Your task to perform on an android device: turn on translation in the chrome app Image 0: 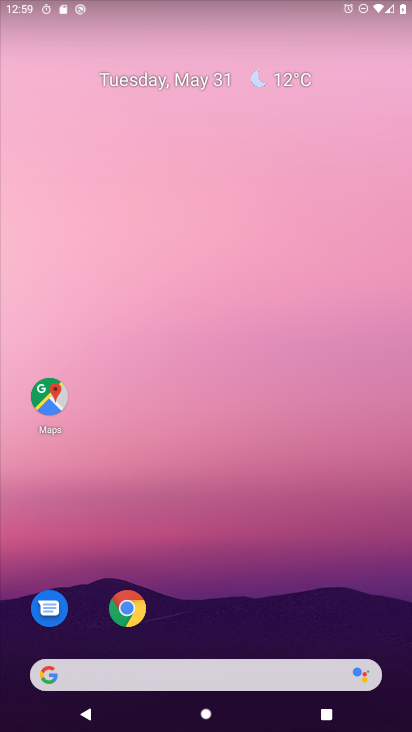
Step 0: click (131, 618)
Your task to perform on an android device: turn on translation in the chrome app Image 1: 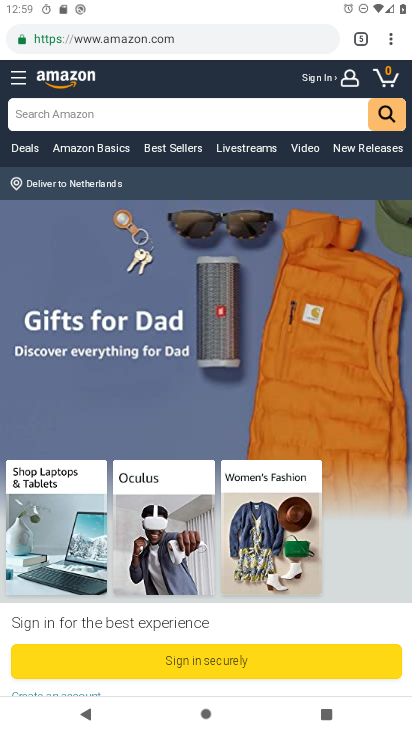
Step 1: click (392, 39)
Your task to perform on an android device: turn on translation in the chrome app Image 2: 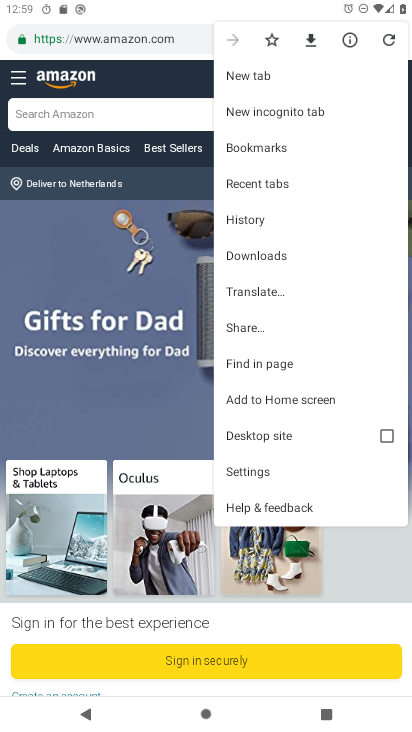
Step 2: click (252, 471)
Your task to perform on an android device: turn on translation in the chrome app Image 3: 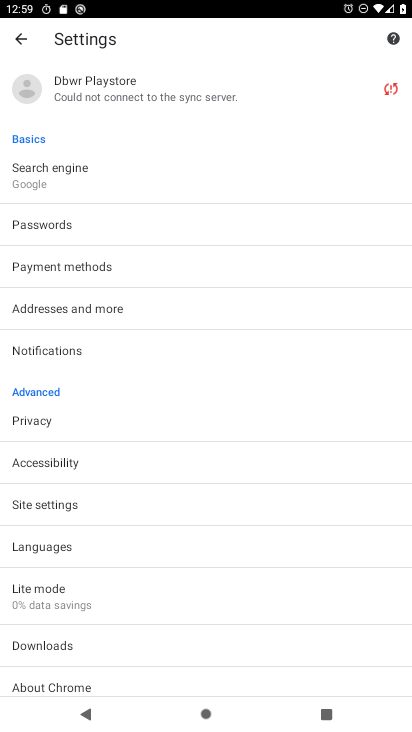
Step 3: click (44, 551)
Your task to perform on an android device: turn on translation in the chrome app Image 4: 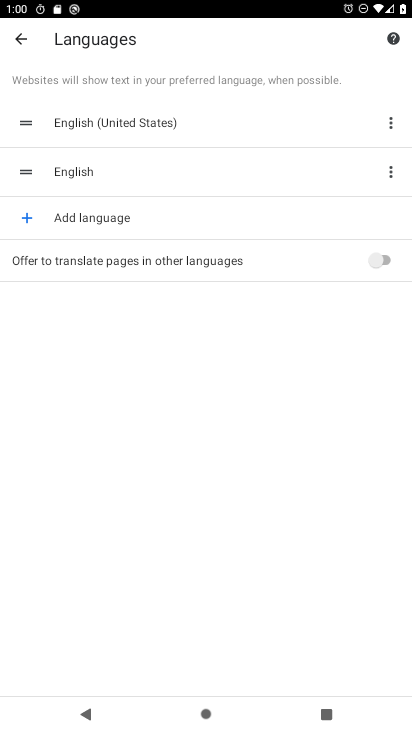
Step 4: click (384, 260)
Your task to perform on an android device: turn on translation in the chrome app Image 5: 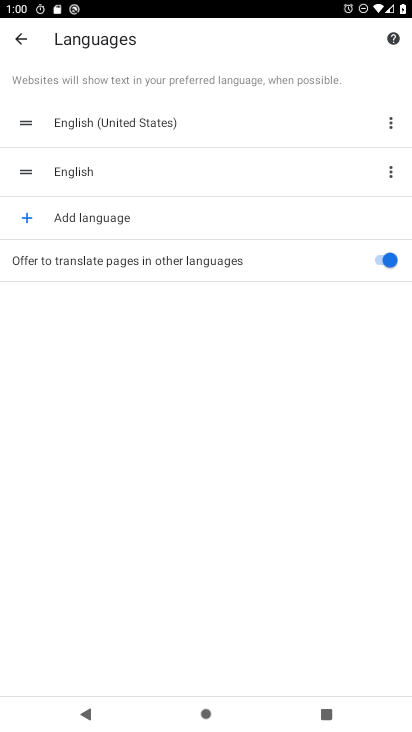
Step 5: task complete